Your task to perform on an android device: find snoozed emails in the gmail app Image 0: 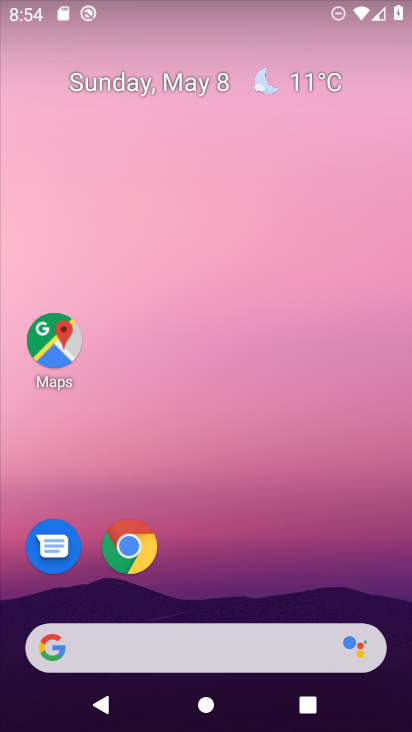
Step 0: drag from (252, 561) to (204, 55)
Your task to perform on an android device: find snoozed emails in the gmail app Image 1: 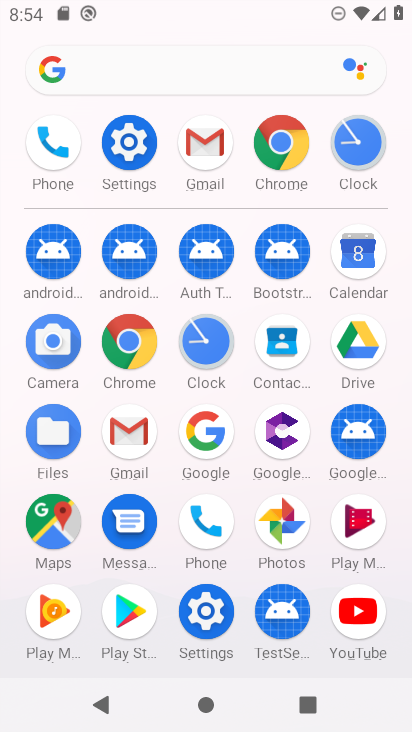
Step 1: click (204, 126)
Your task to perform on an android device: find snoozed emails in the gmail app Image 2: 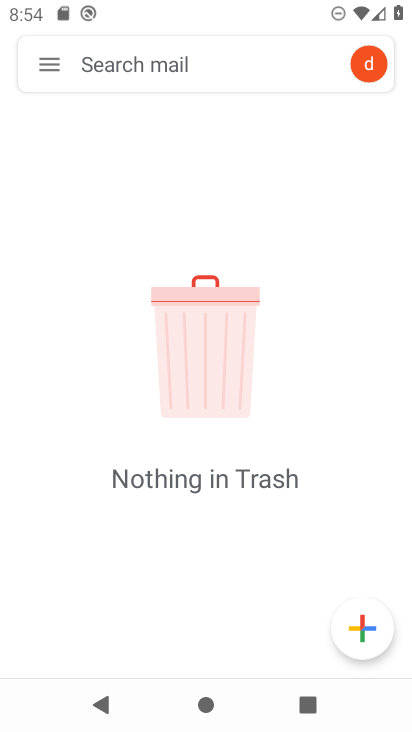
Step 2: click (36, 50)
Your task to perform on an android device: find snoozed emails in the gmail app Image 3: 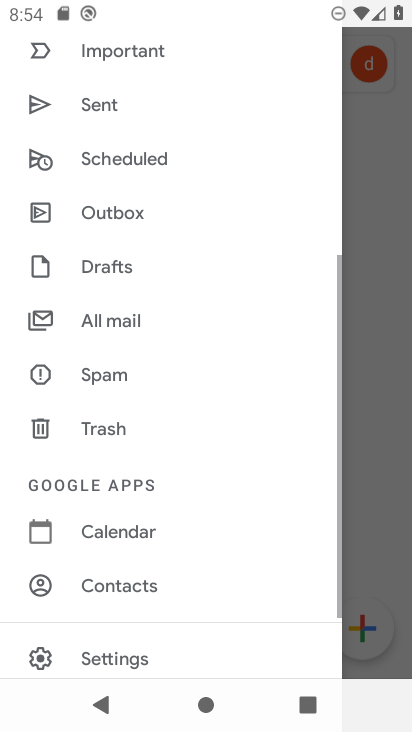
Step 3: drag from (188, 110) to (250, 566)
Your task to perform on an android device: find snoozed emails in the gmail app Image 4: 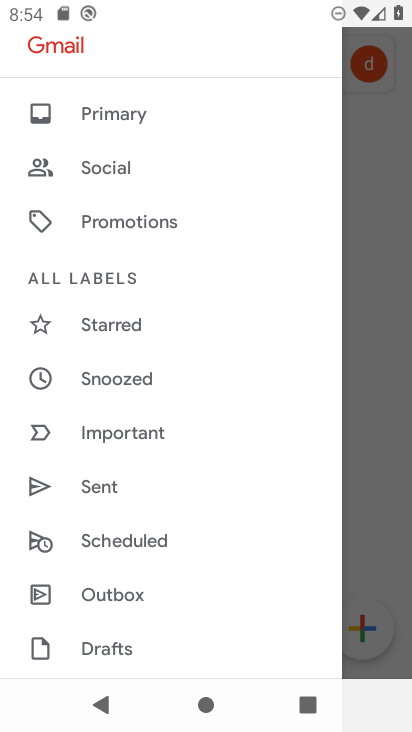
Step 4: click (152, 372)
Your task to perform on an android device: find snoozed emails in the gmail app Image 5: 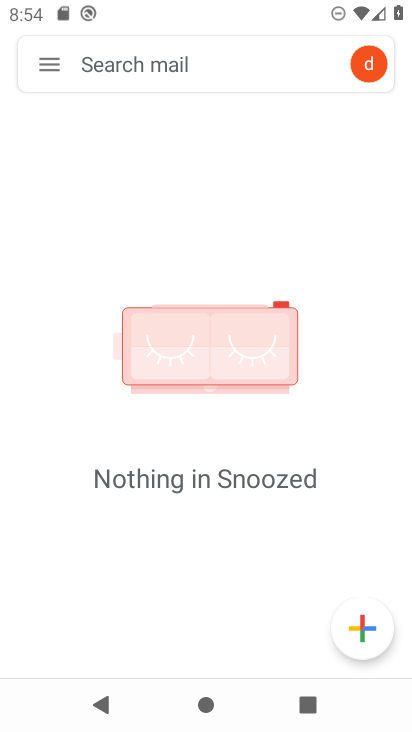
Step 5: task complete